Your task to perform on an android device: toggle notifications settings in the gmail app Image 0: 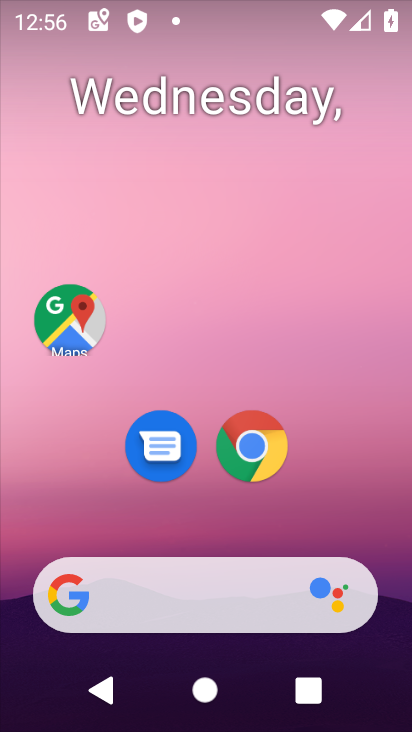
Step 0: drag from (337, 583) to (318, 302)
Your task to perform on an android device: toggle notifications settings in the gmail app Image 1: 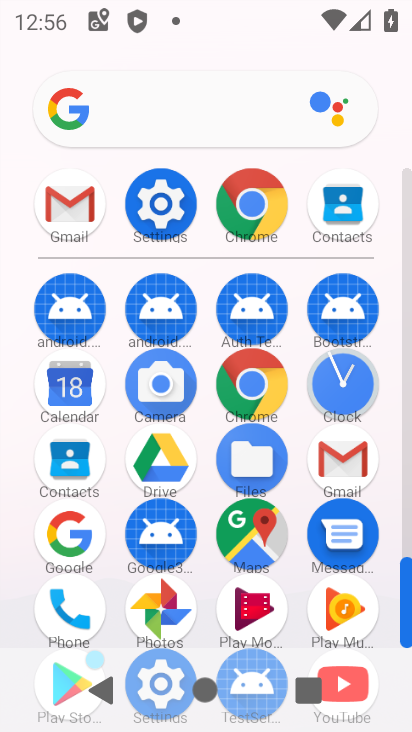
Step 1: click (334, 468)
Your task to perform on an android device: toggle notifications settings in the gmail app Image 2: 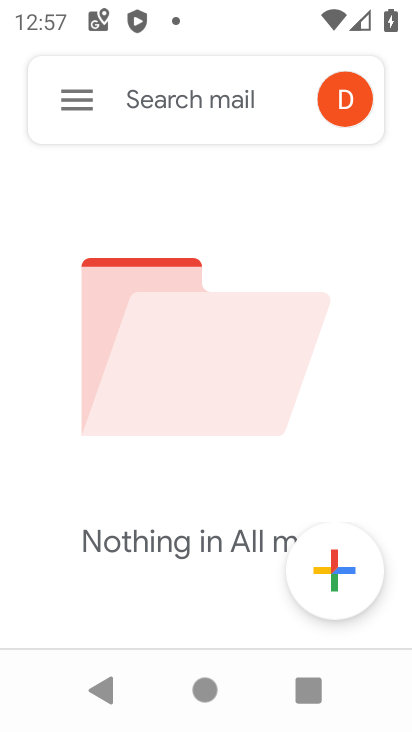
Step 2: press back button
Your task to perform on an android device: toggle notifications settings in the gmail app Image 3: 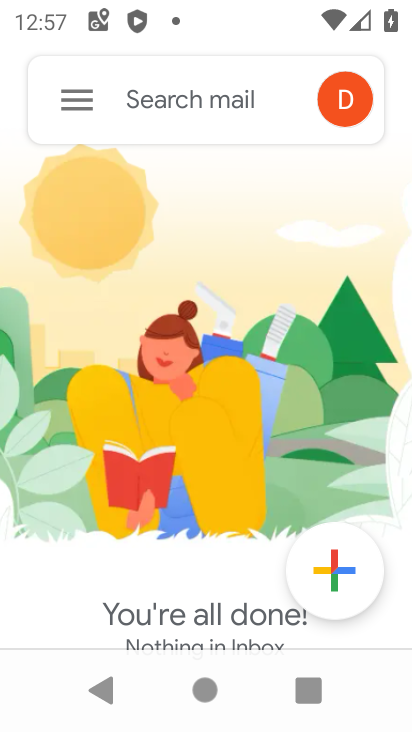
Step 3: click (76, 108)
Your task to perform on an android device: toggle notifications settings in the gmail app Image 4: 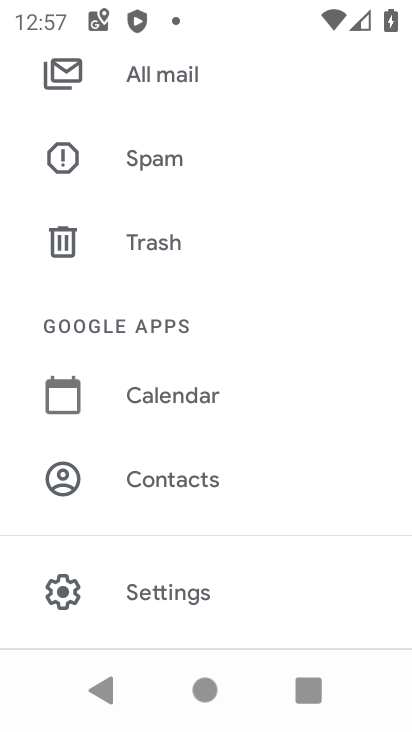
Step 4: click (174, 586)
Your task to perform on an android device: toggle notifications settings in the gmail app Image 5: 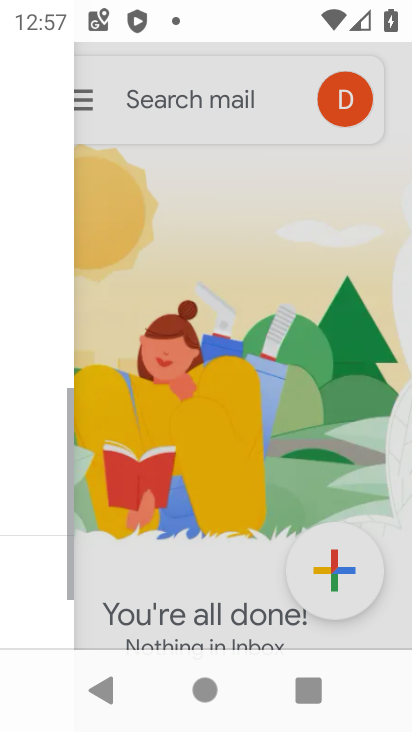
Step 5: click (174, 586)
Your task to perform on an android device: toggle notifications settings in the gmail app Image 6: 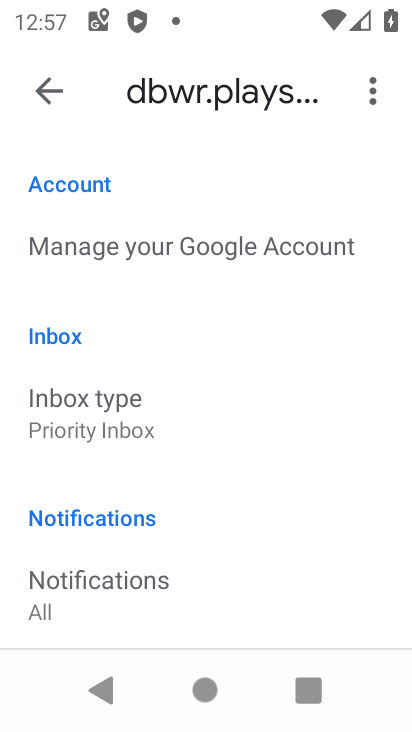
Step 6: drag from (71, 570) to (66, 286)
Your task to perform on an android device: toggle notifications settings in the gmail app Image 7: 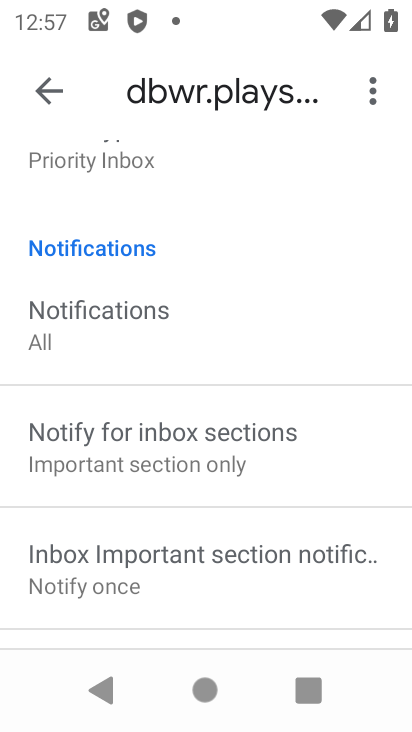
Step 7: click (75, 307)
Your task to perform on an android device: toggle notifications settings in the gmail app Image 8: 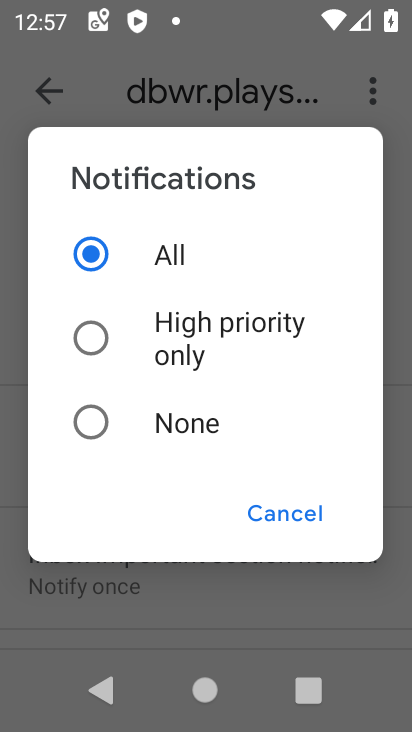
Step 8: click (91, 342)
Your task to perform on an android device: toggle notifications settings in the gmail app Image 9: 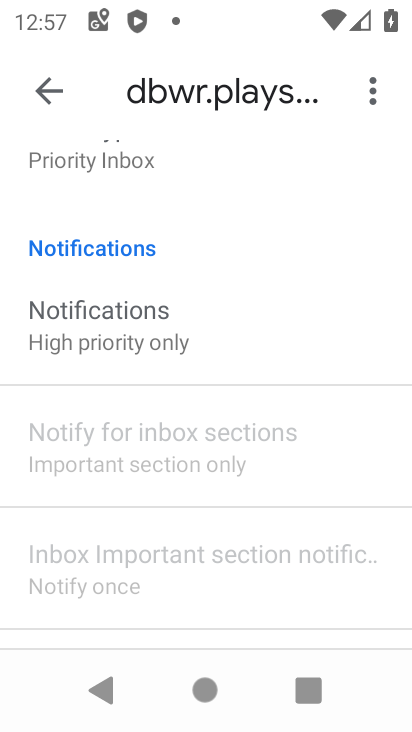
Step 9: task complete